Your task to perform on an android device: Go to settings Image 0: 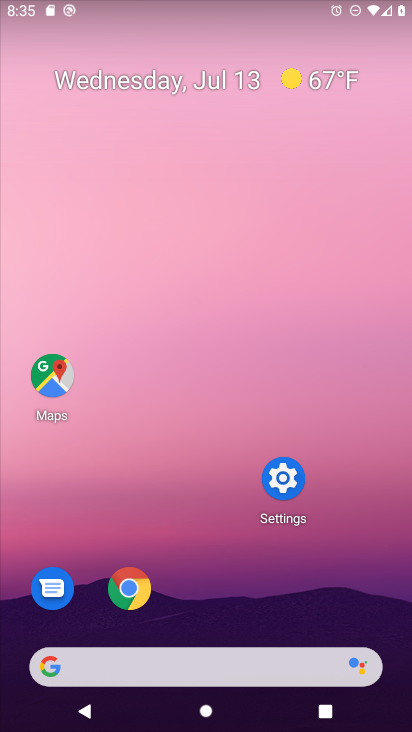
Step 0: click (271, 494)
Your task to perform on an android device: Go to settings Image 1: 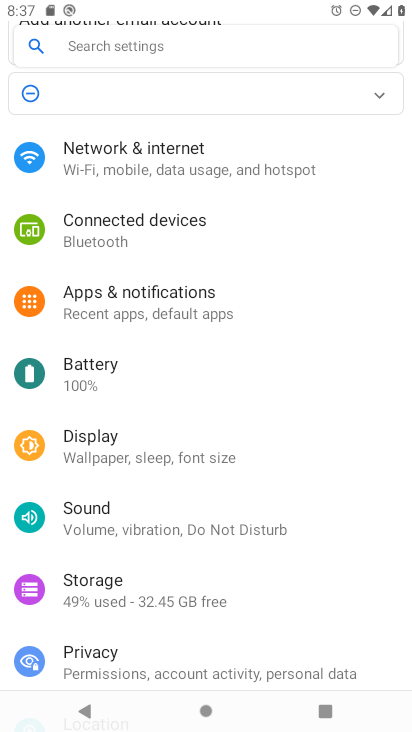
Step 1: task complete